Your task to perform on an android device: Clear the shopping cart on target.com. Search for dell xps on target.com, select the first entry, add it to the cart, then select checkout. Image 0: 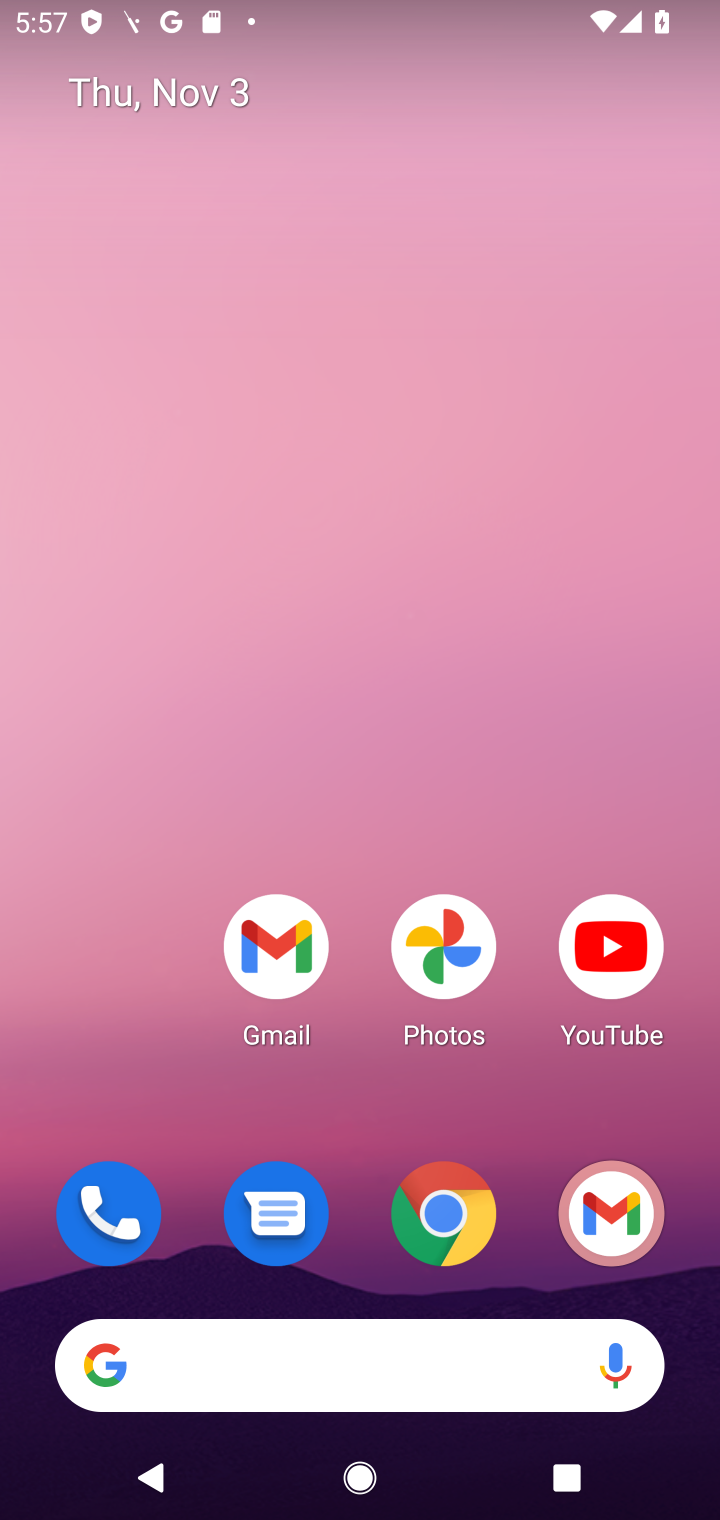
Step 0: click (447, 1197)
Your task to perform on an android device: Clear the shopping cart on target.com. Search for dell xps on target.com, select the first entry, add it to the cart, then select checkout. Image 1: 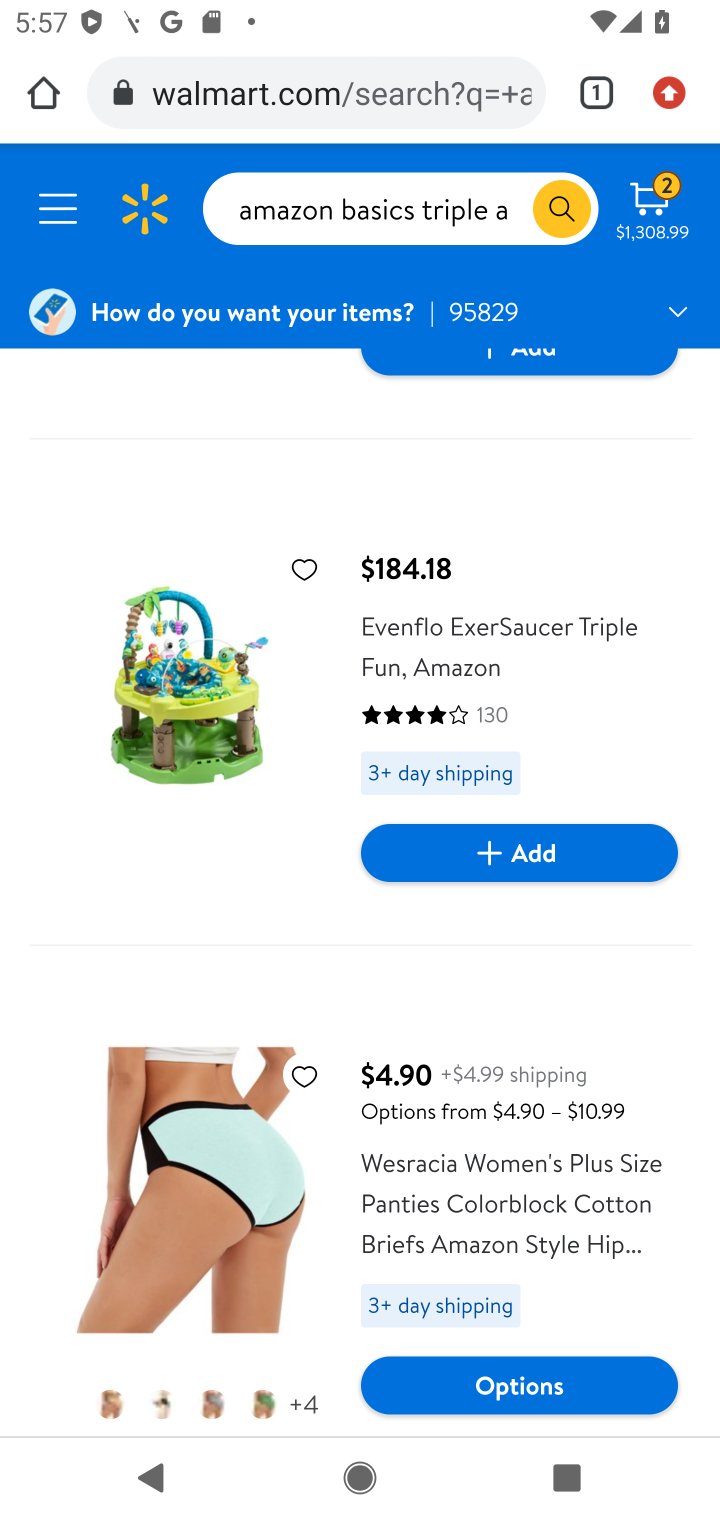
Step 1: click (368, 94)
Your task to perform on an android device: Clear the shopping cart on target.com. Search for dell xps on target.com, select the first entry, add it to the cart, then select checkout. Image 2: 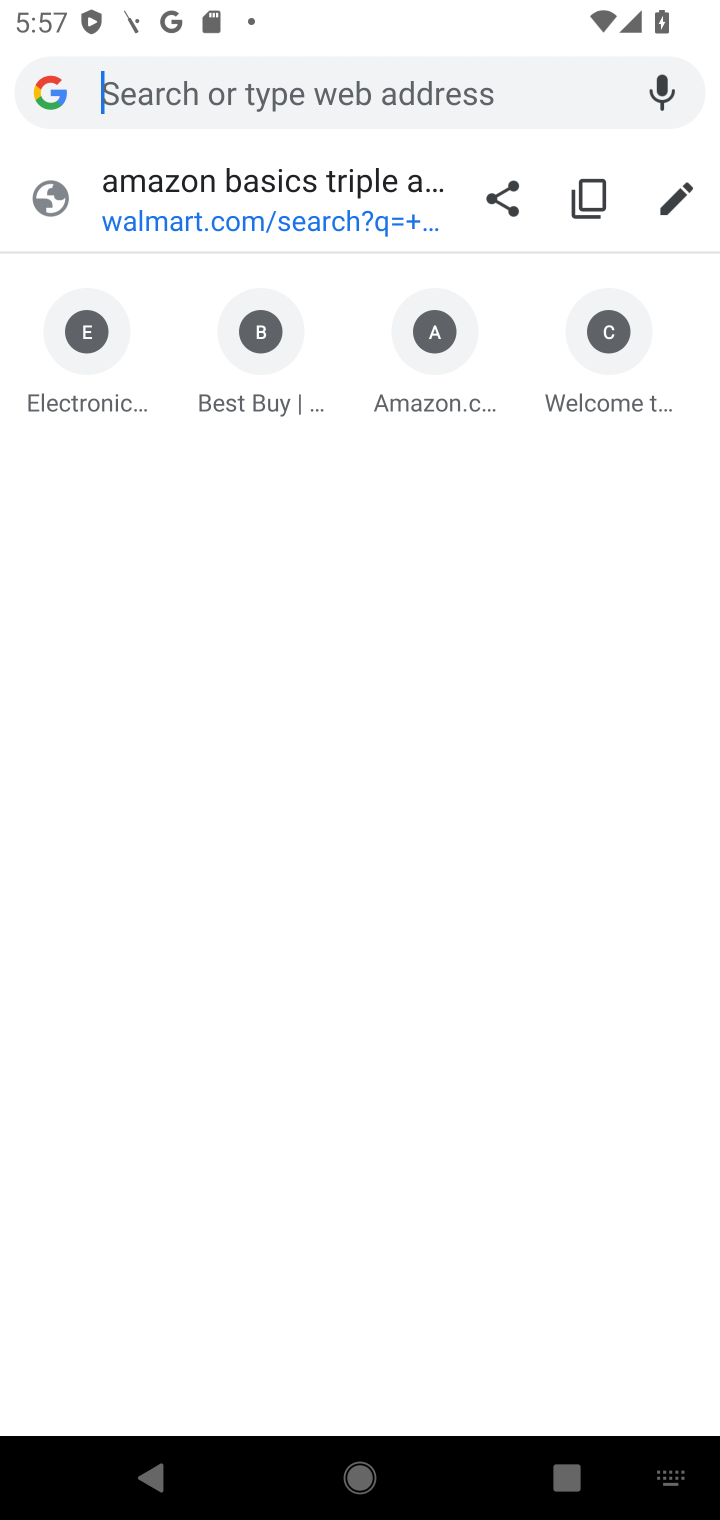
Step 2: type "target.com"
Your task to perform on an android device: Clear the shopping cart on target.com. Search for dell xps on target.com, select the first entry, add it to the cart, then select checkout. Image 3: 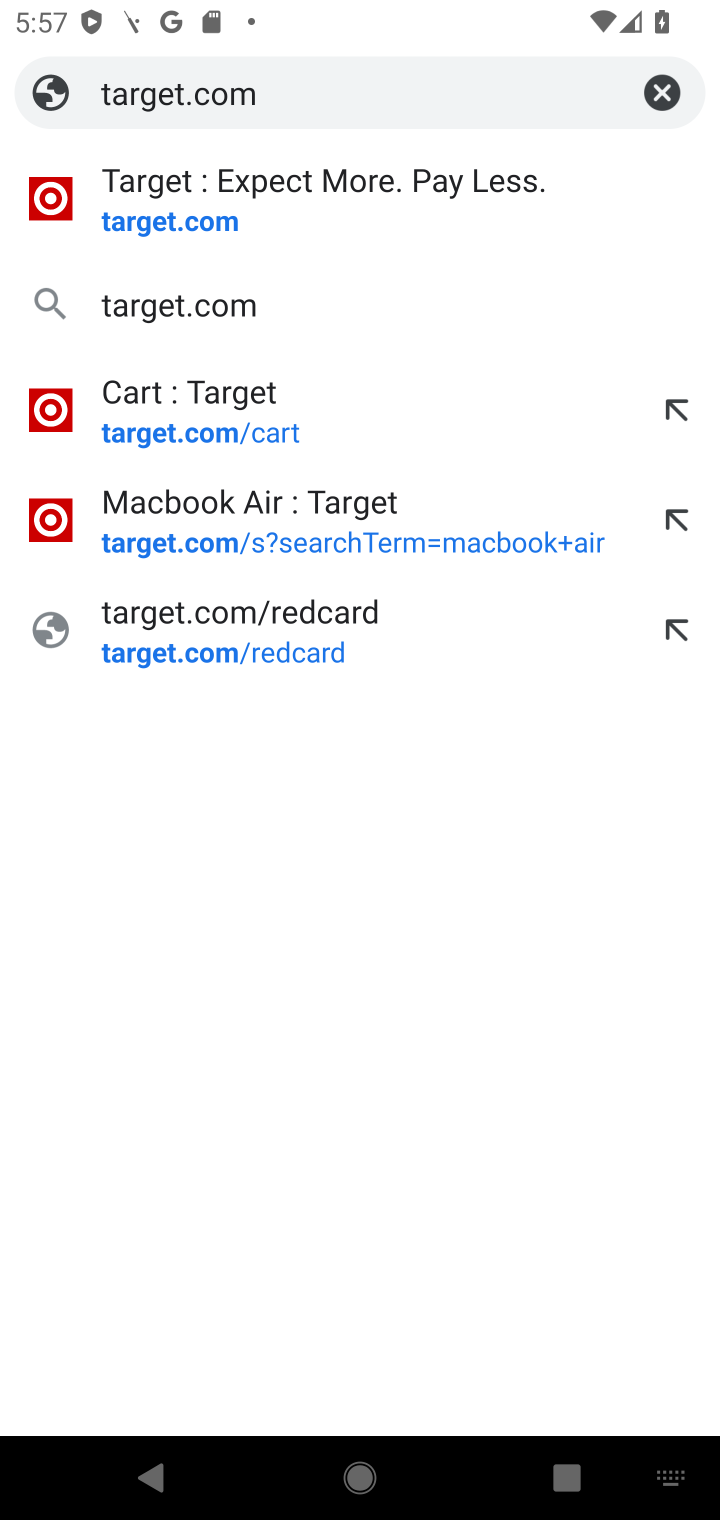
Step 3: click (196, 231)
Your task to perform on an android device: Clear the shopping cart on target.com. Search for dell xps on target.com, select the first entry, add it to the cart, then select checkout. Image 4: 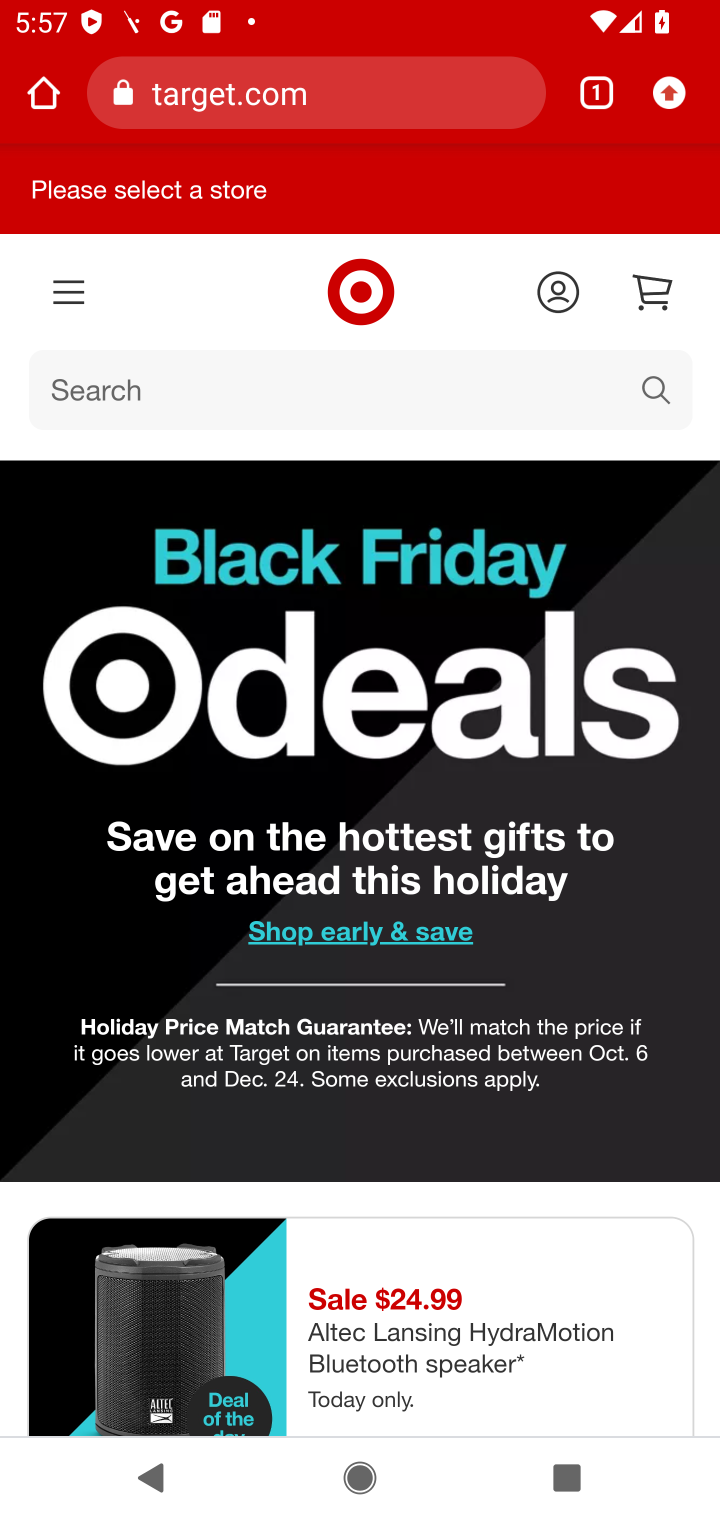
Step 4: click (655, 299)
Your task to perform on an android device: Clear the shopping cart on target.com. Search for dell xps on target.com, select the first entry, add it to the cart, then select checkout. Image 5: 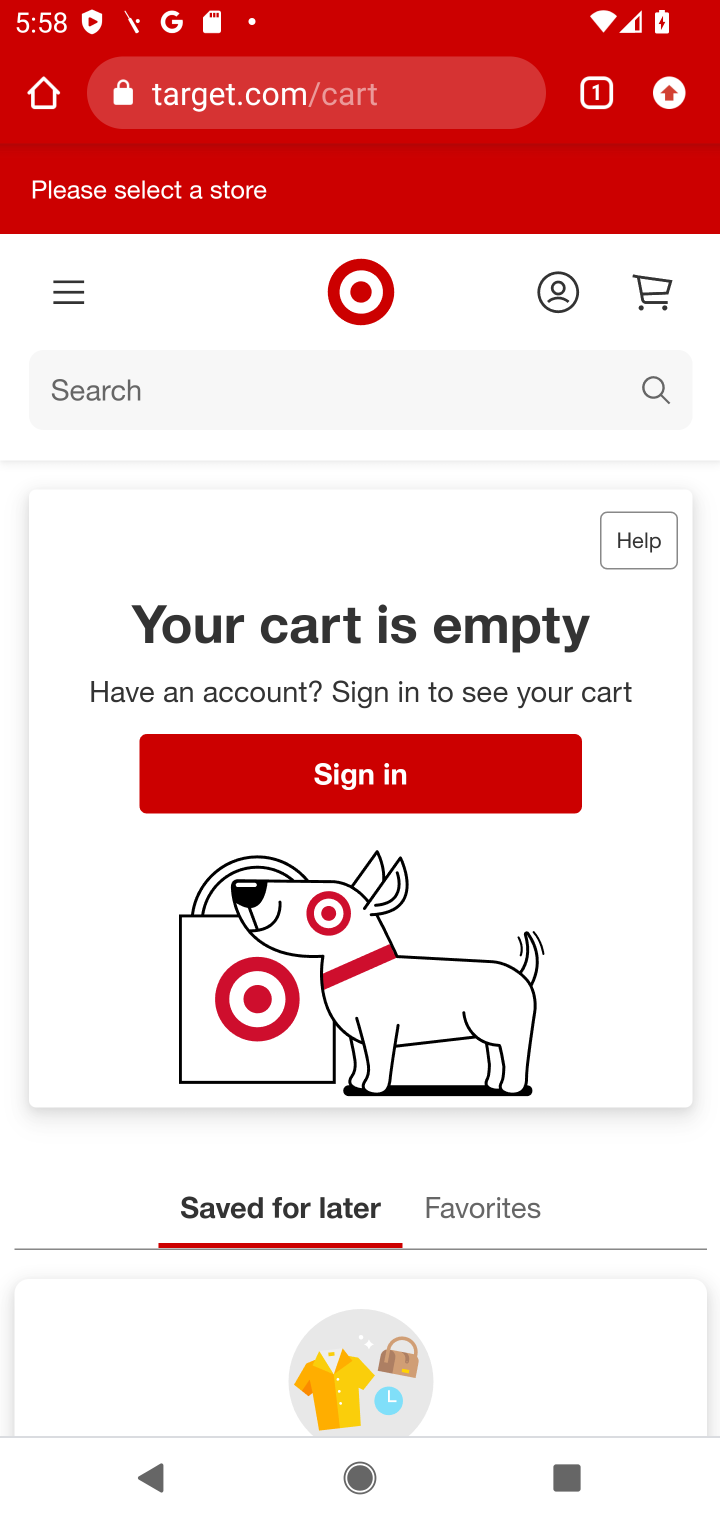
Step 5: click (640, 387)
Your task to perform on an android device: Clear the shopping cart on target.com. Search for dell xps on target.com, select the first entry, add it to the cart, then select checkout. Image 6: 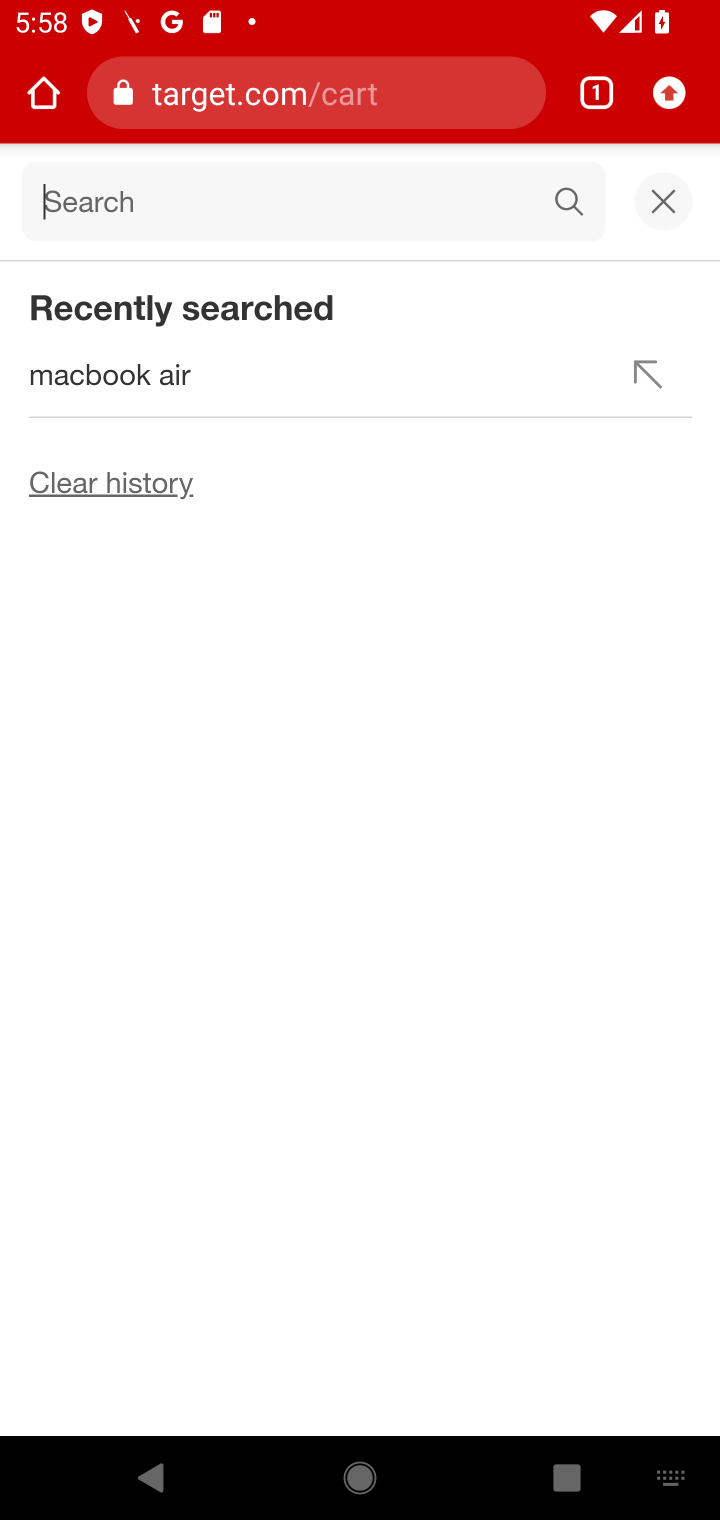
Step 6: type "dell xps "
Your task to perform on an android device: Clear the shopping cart on target.com. Search for dell xps on target.com, select the first entry, add it to the cart, then select checkout. Image 7: 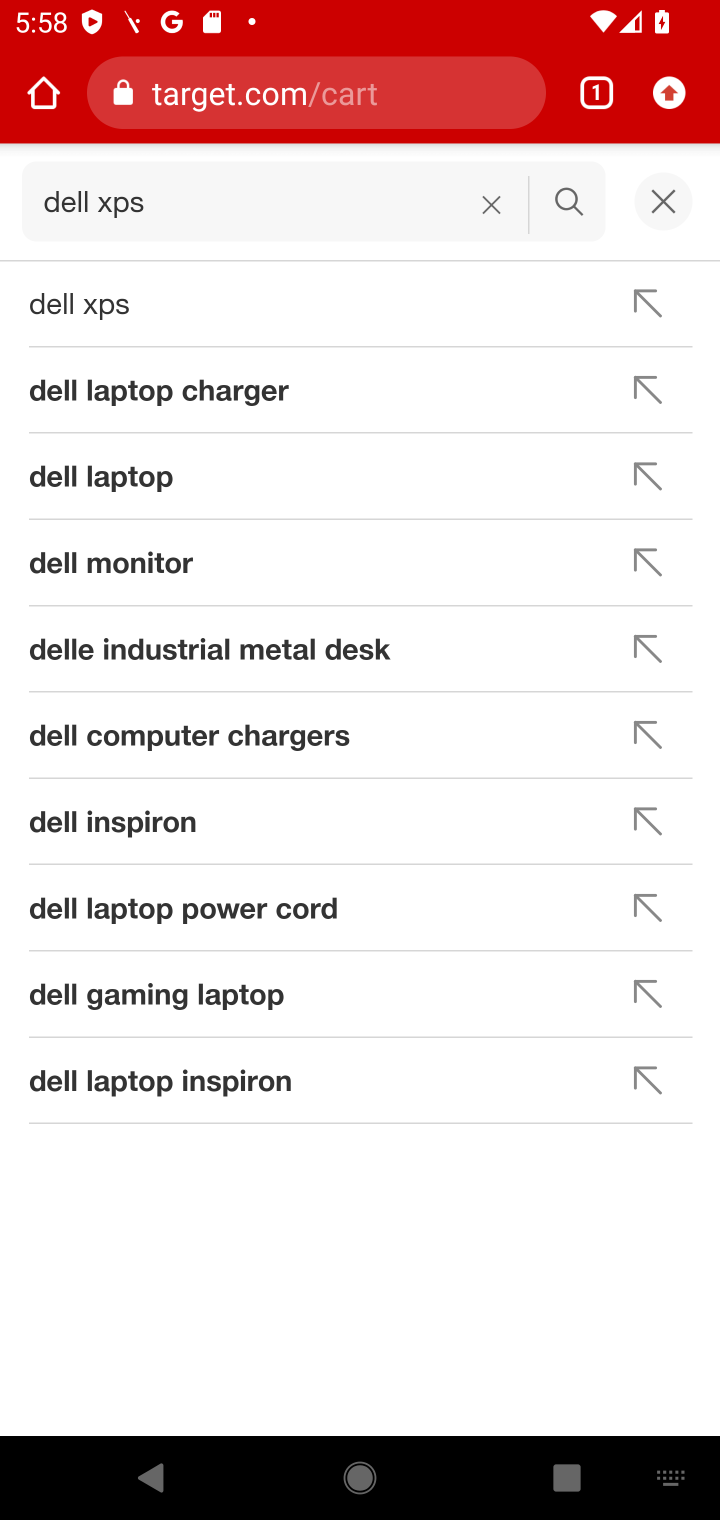
Step 7: click (103, 305)
Your task to perform on an android device: Clear the shopping cart on target.com. Search for dell xps on target.com, select the first entry, add it to the cart, then select checkout. Image 8: 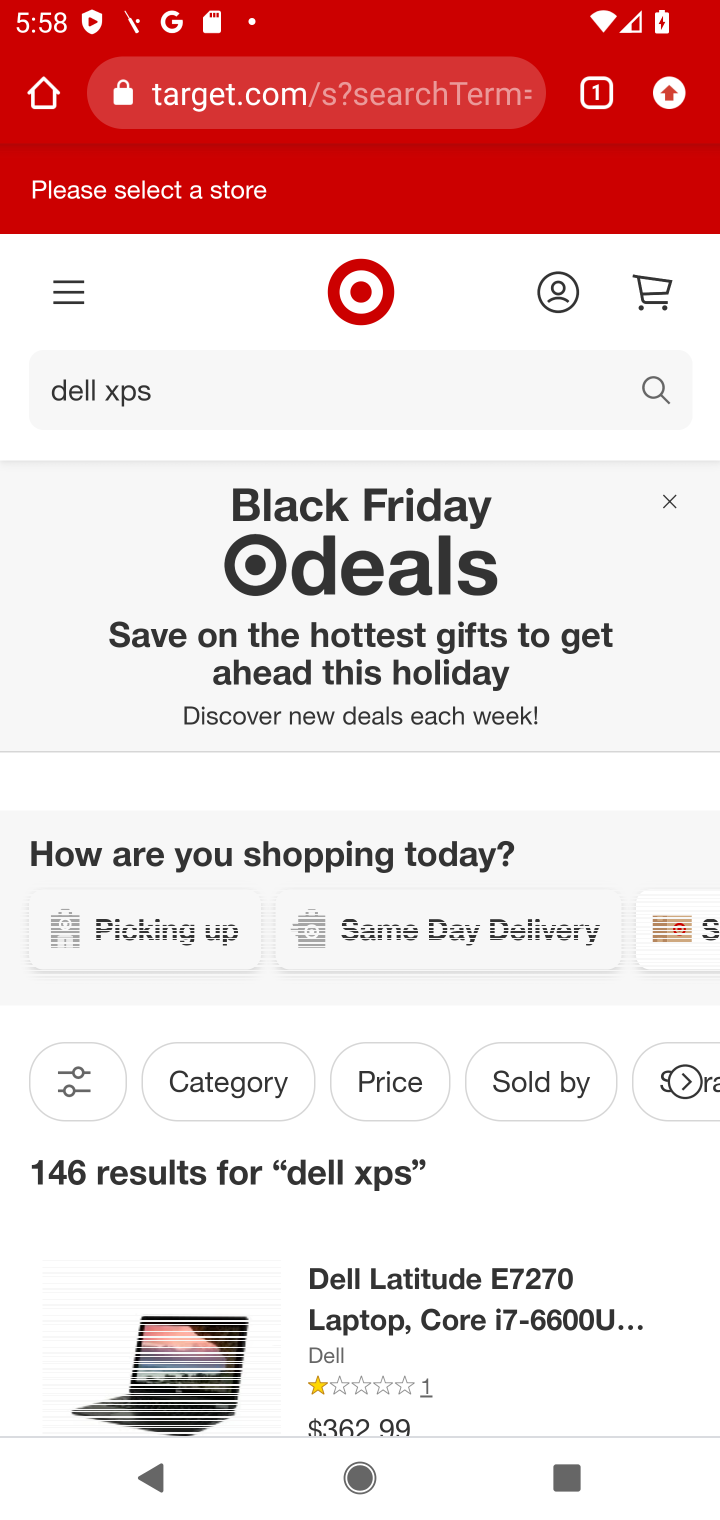
Step 8: task complete